Your task to perform on an android device: Go to accessibility settings Image 0: 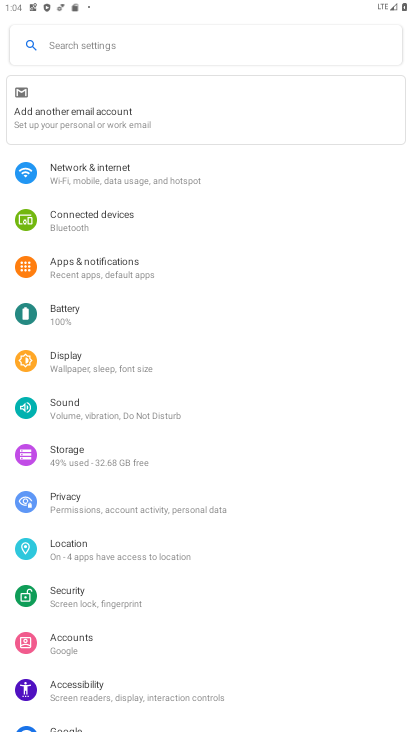
Step 0: press home button
Your task to perform on an android device: Go to accessibility settings Image 1: 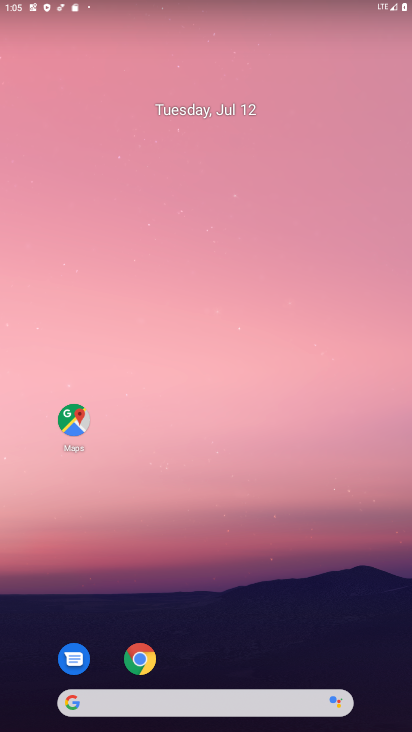
Step 1: drag from (221, 730) to (222, 254)
Your task to perform on an android device: Go to accessibility settings Image 2: 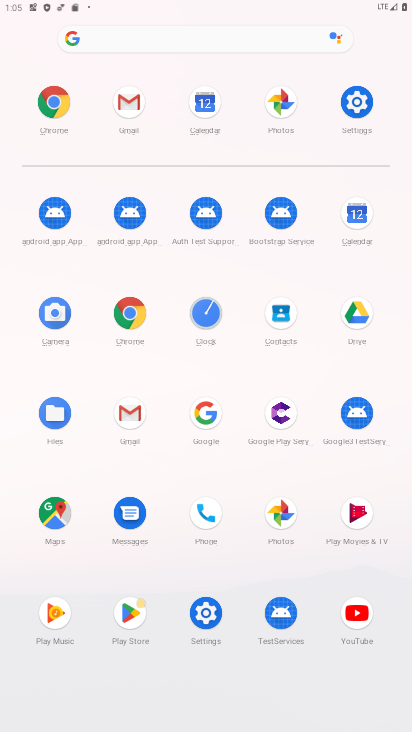
Step 2: click (358, 104)
Your task to perform on an android device: Go to accessibility settings Image 3: 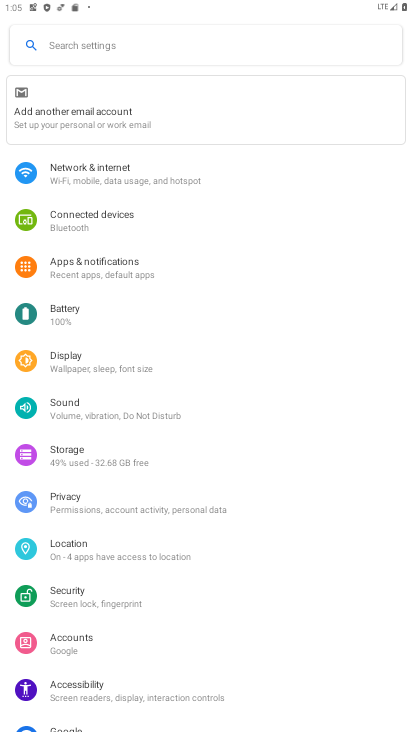
Step 3: click (83, 686)
Your task to perform on an android device: Go to accessibility settings Image 4: 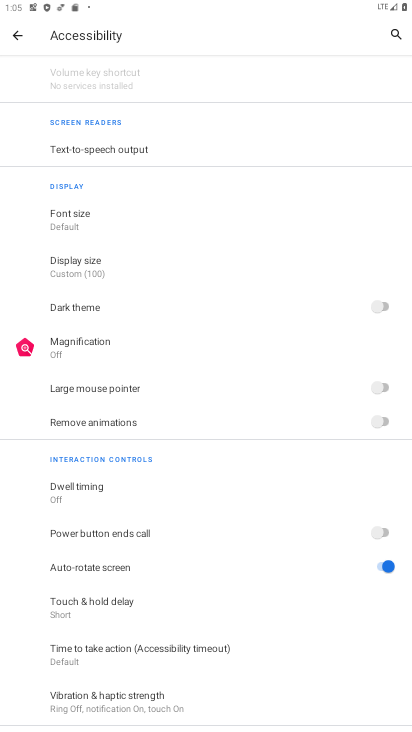
Step 4: task complete